Your task to perform on an android device: Turn off the flashlight Image 0: 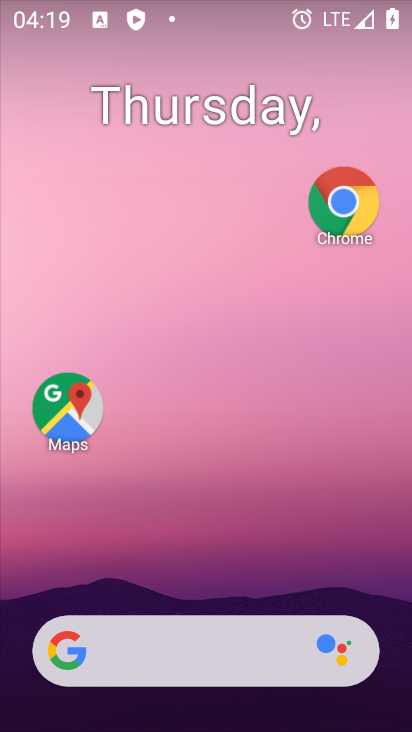
Step 0: drag from (226, 546) to (224, 53)
Your task to perform on an android device: Turn off the flashlight Image 1: 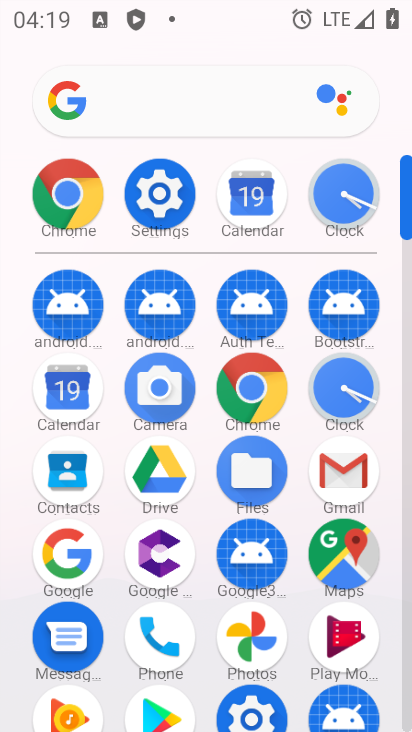
Step 1: click (135, 187)
Your task to perform on an android device: Turn off the flashlight Image 2: 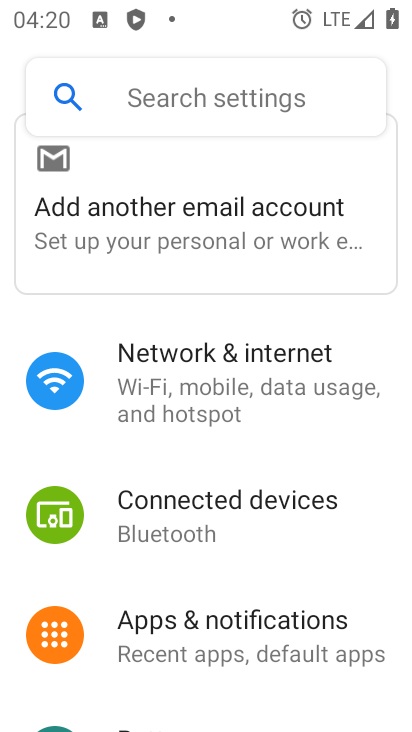
Step 2: task complete